Your task to perform on an android device: move an email to a new category in the gmail app Image 0: 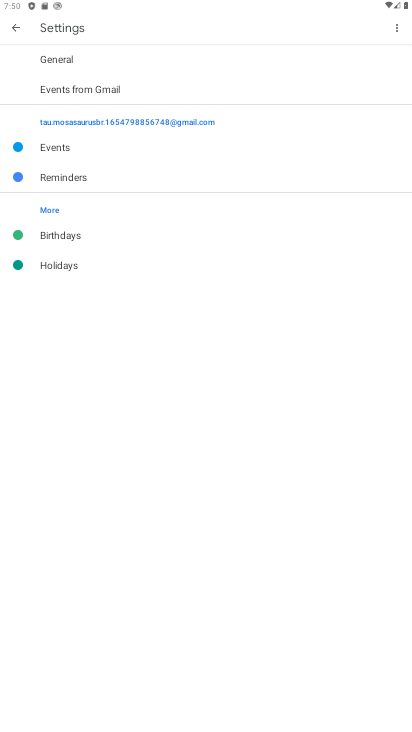
Step 0: press home button
Your task to perform on an android device: move an email to a new category in the gmail app Image 1: 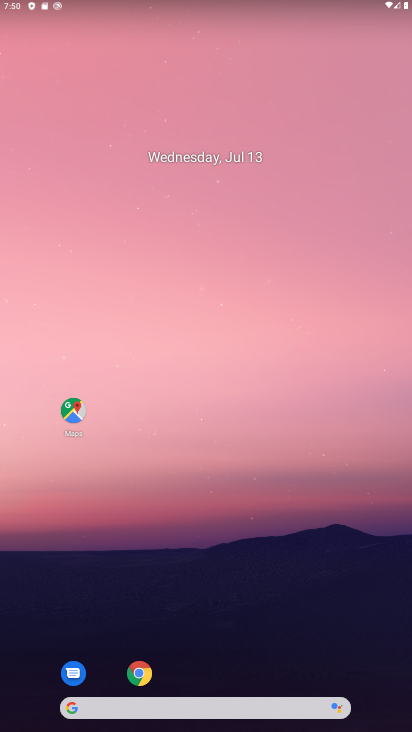
Step 1: drag from (270, 692) to (269, 254)
Your task to perform on an android device: move an email to a new category in the gmail app Image 2: 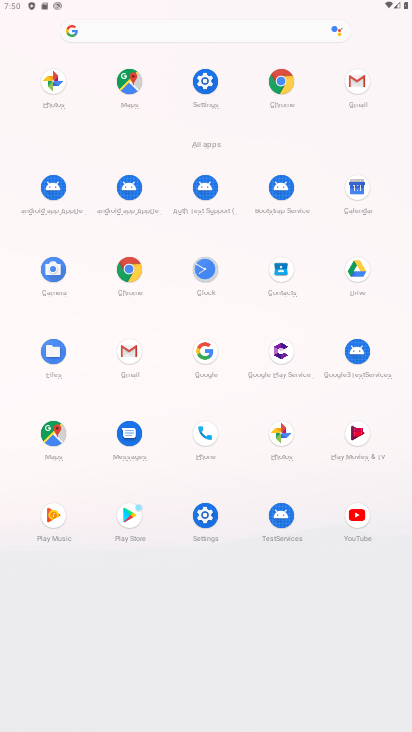
Step 2: click (355, 84)
Your task to perform on an android device: move an email to a new category in the gmail app Image 3: 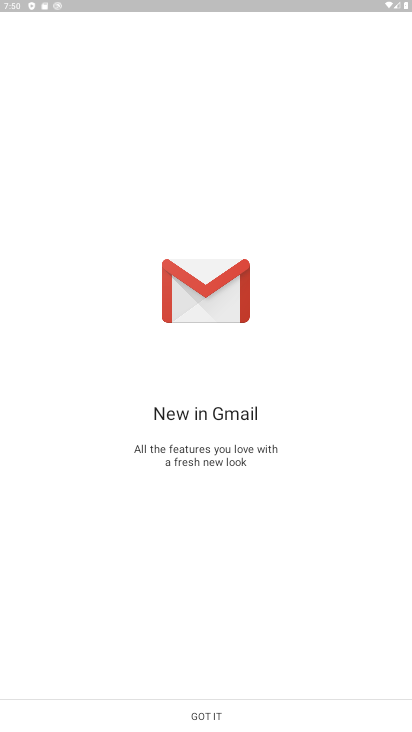
Step 3: click (228, 714)
Your task to perform on an android device: move an email to a new category in the gmail app Image 4: 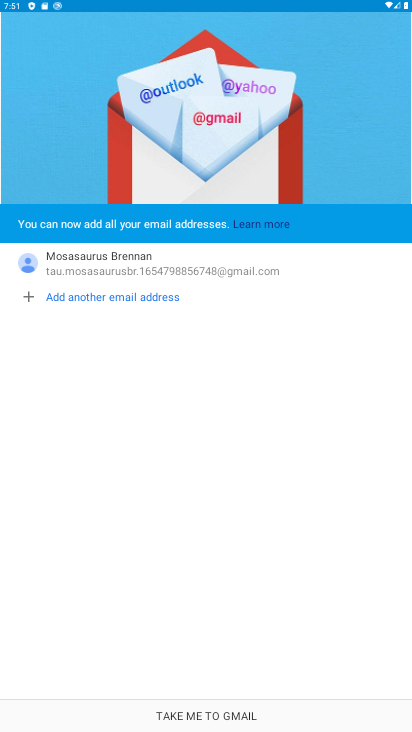
Step 4: click (224, 718)
Your task to perform on an android device: move an email to a new category in the gmail app Image 5: 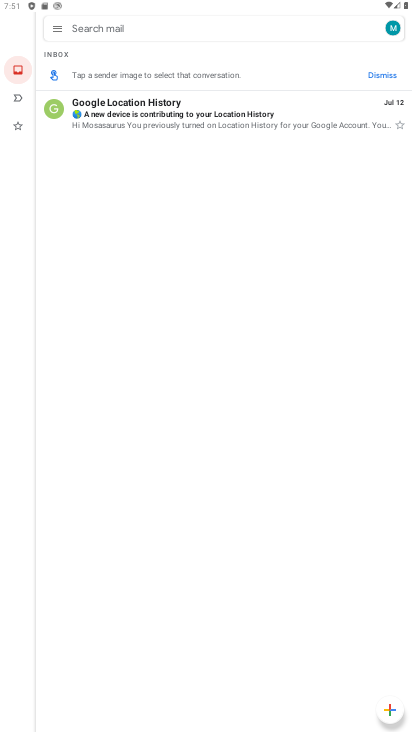
Step 5: click (55, 25)
Your task to perform on an android device: move an email to a new category in the gmail app Image 6: 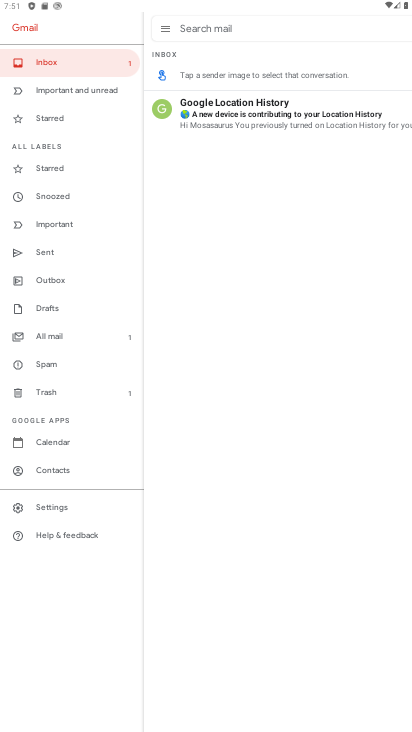
Step 6: click (54, 332)
Your task to perform on an android device: move an email to a new category in the gmail app Image 7: 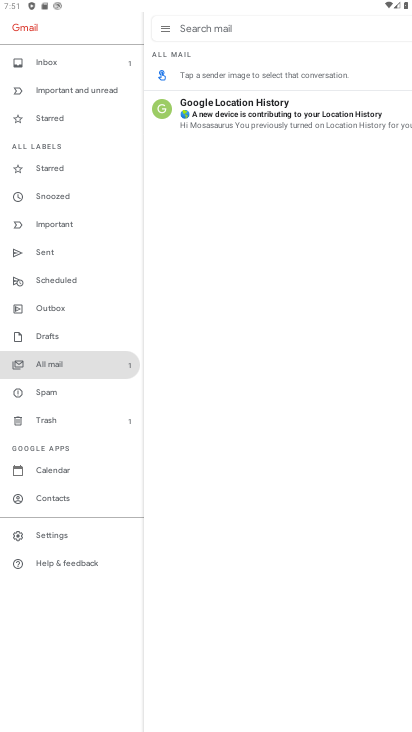
Step 7: click (321, 119)
Your task to perform on an android device: move an email to a new category in the gmail app Image 8: 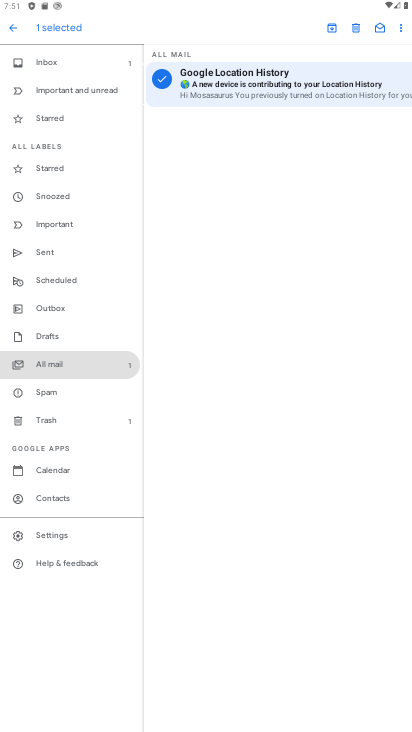
Step 8: click (402, 21)
Your task to perform on an android device: move an email to a new category in the gmail app Image 9: 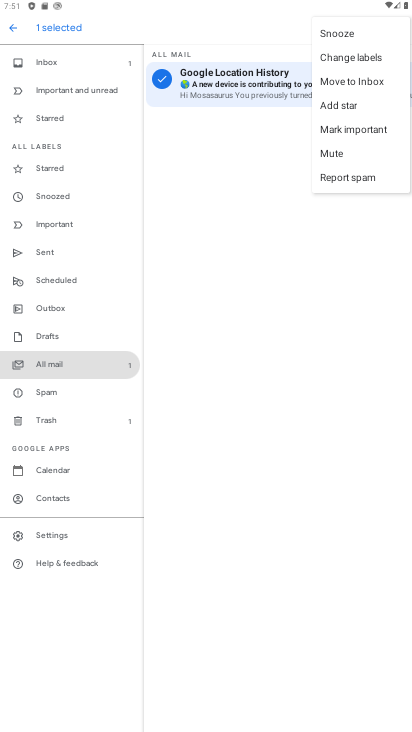
Step 9: click (355, 78)
Your task to perform on an android device: move an email to a new category in the gmail app Image 10: 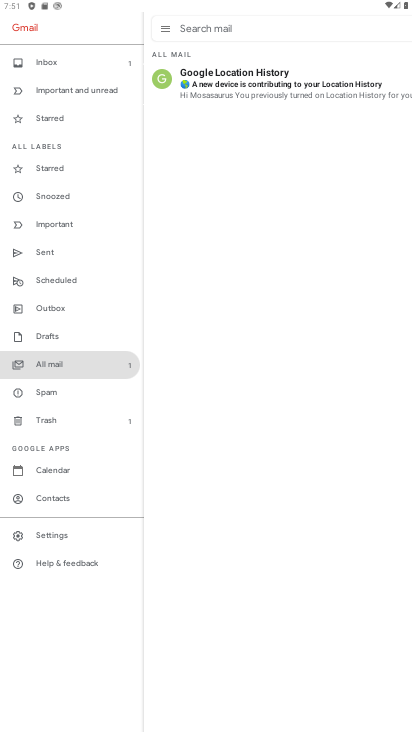
Step 10: click (320, 85)
Your task to perform on an android device: move an email to a new category in the gmail app Image 11: 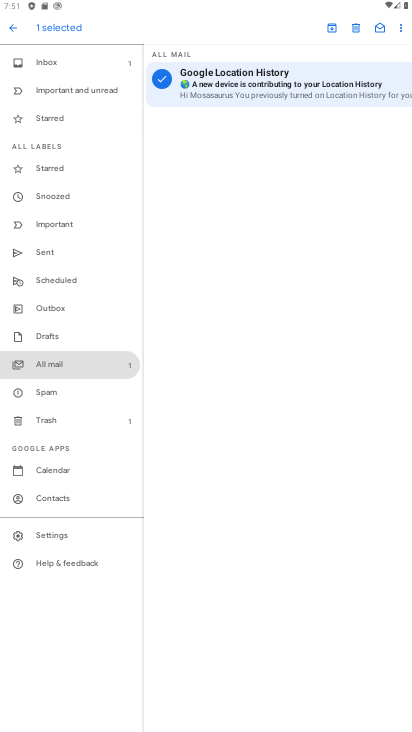
Step 11: click (403, 19)
Your task to perform on an android device: move an email to a new category in the gmail app Image 12: 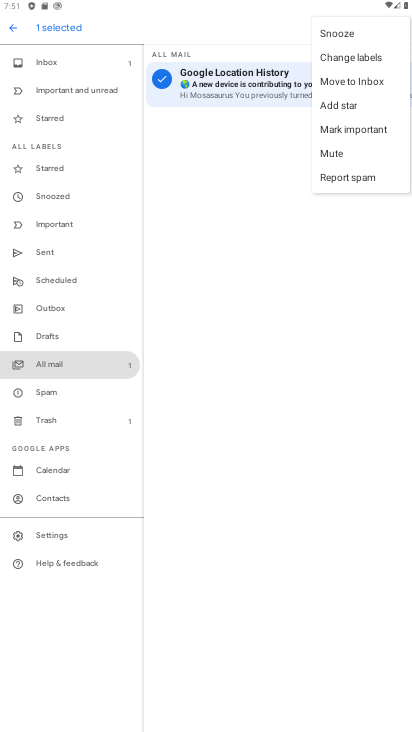
Step 12: click (346, 84)
Your task to perform on an android device: move an email to a new category in the gmail app Image 13: 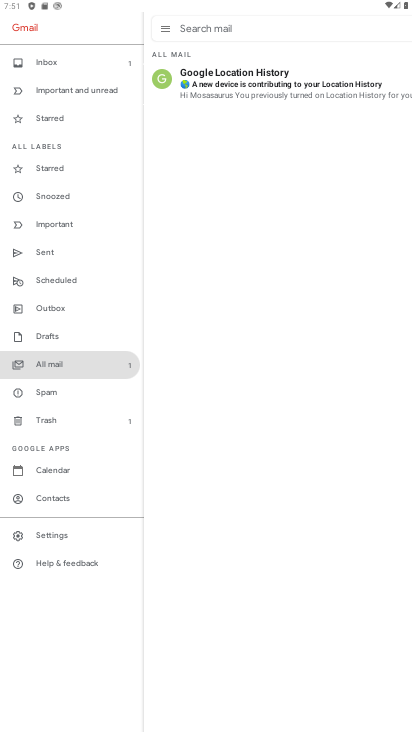
Step 13: click (258, 79)
Your task to perform on an android device: move an email to a new category in the gmail app Image 14: 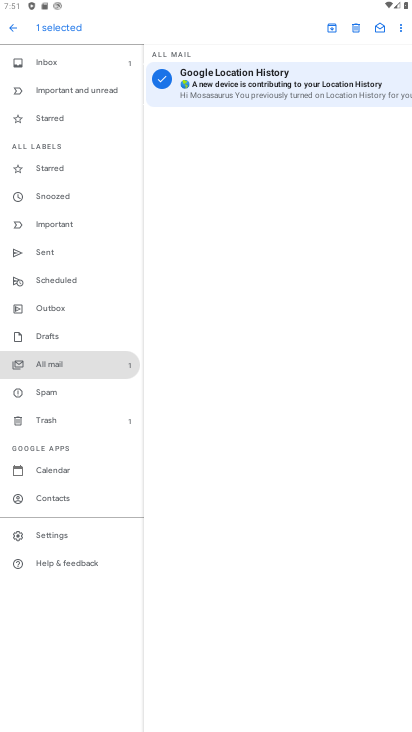
Step 14: click (400, 26)
Your task to perform on an android device: move an email to a new category in the gmail app Image 15: 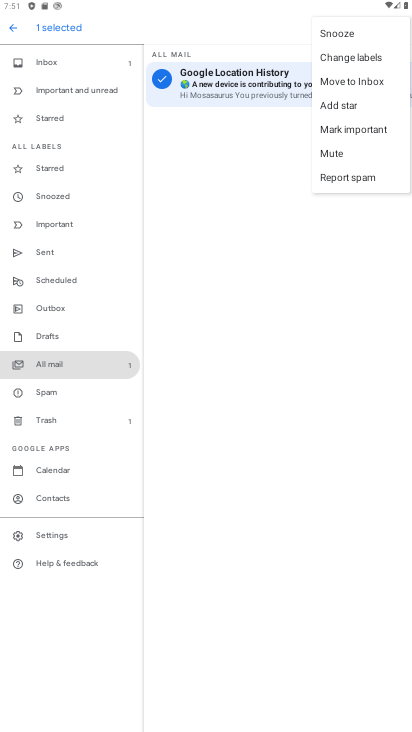
Step 15: click (361, 83)
Your task to perform on an android device: move an email to a new category in the gmail app Image 16: 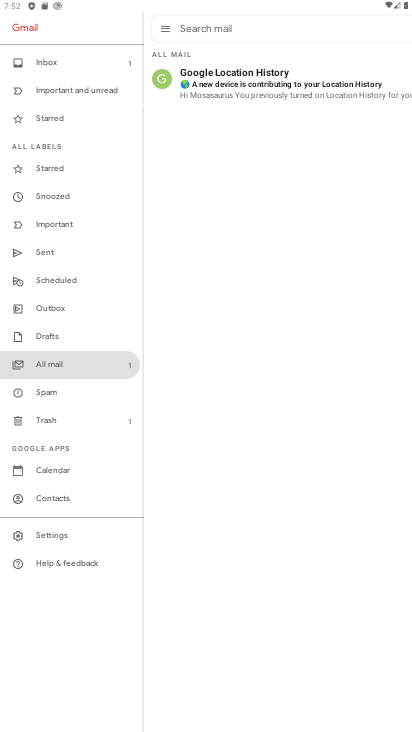
Step 16: task complete